Your task to perform on an android device: open a new tab in the chrome app Image 0: 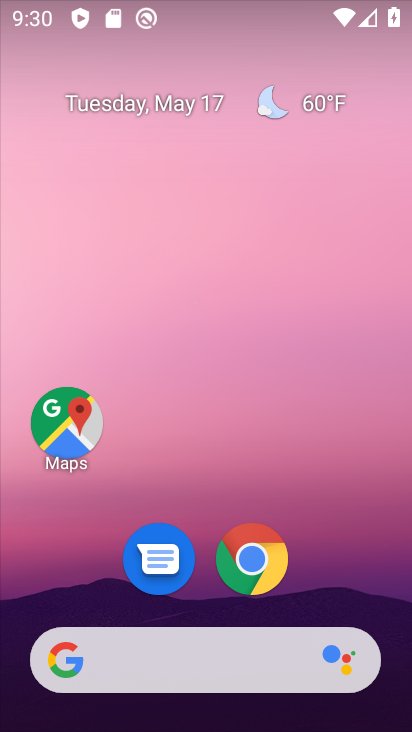
Step 0: click (250, 560)
Your task to perform on an android device: open a new tab in the chrome app Image 1: 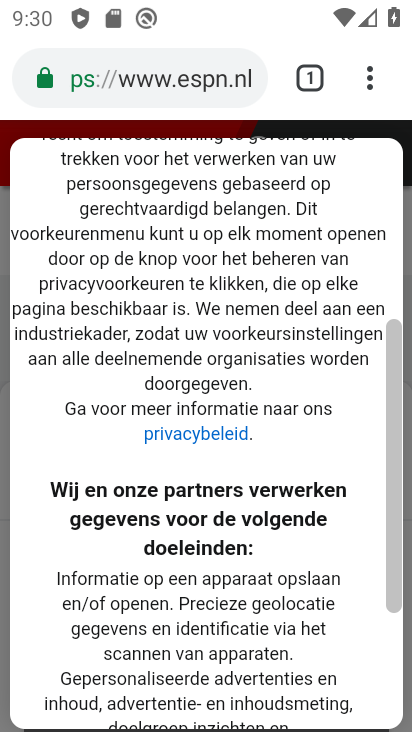
Step 1: click (368, 65)
Your task to perform on an android device: open a new tab in the chrome app Image 2: 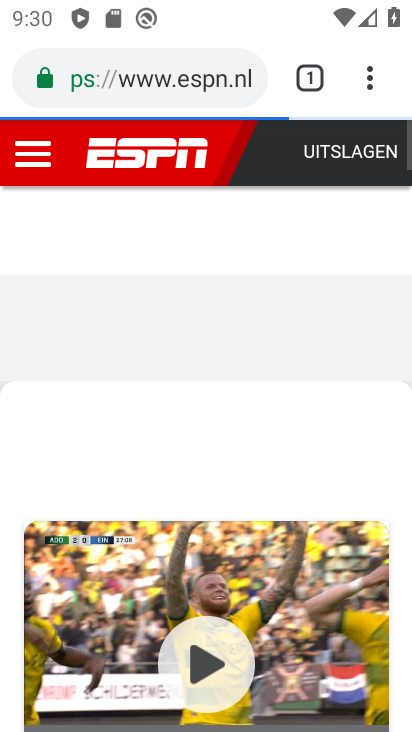
Step 2: task complete